Your task to perform on an android device: Open calendar and show me the first week of next month Image 0: 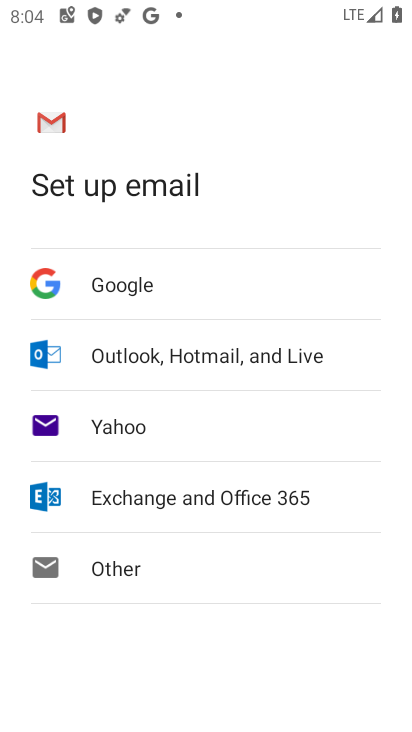
Step 0: press home button
Your task to perform on an android device: Open calendar and show me the first week of next month Image 1: 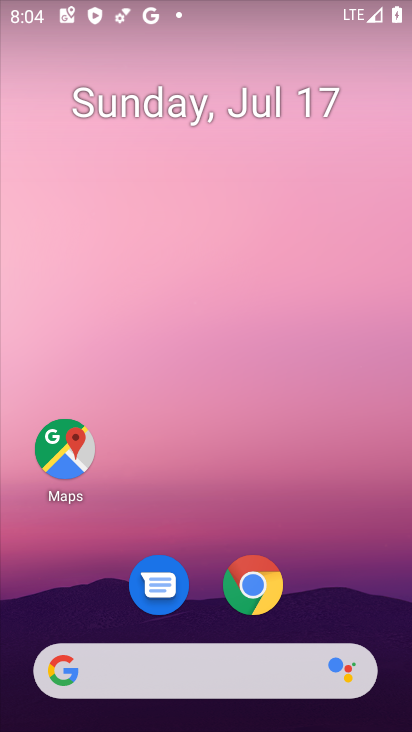
Step 1: drag from (310, 532) to (282, 49)
Your task to perform on an android device: Open calendar and show me the first week of next month Image 2: 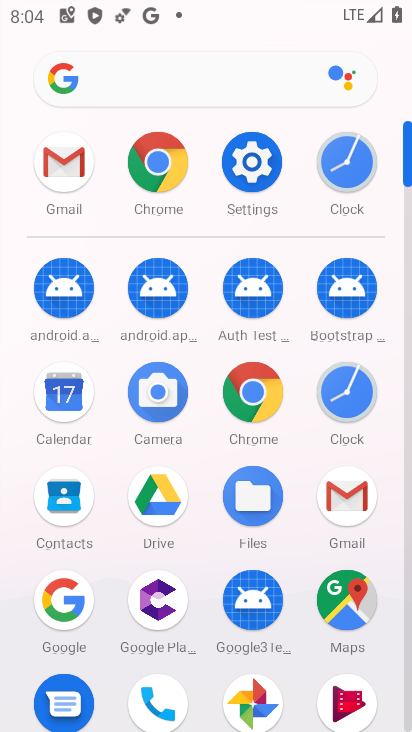
Step 2: click (72, 386)
Your task to perform on an android device: Open calendar and show me the first week of next month Image 3: 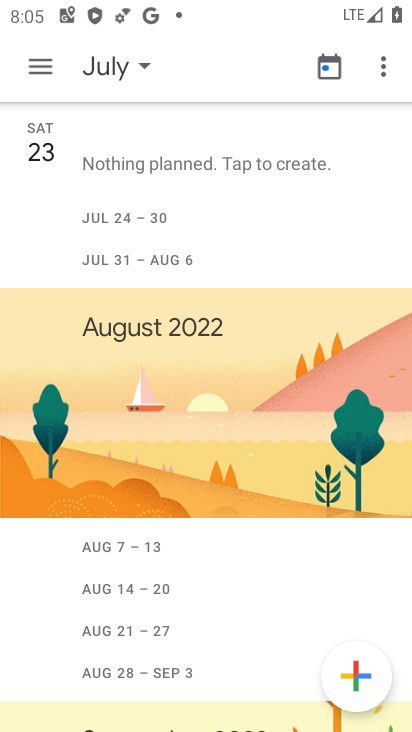
Step 3: click (35, 69)
Your task to perform on an android device: Open calendar and show me the first week of next month Image 4: 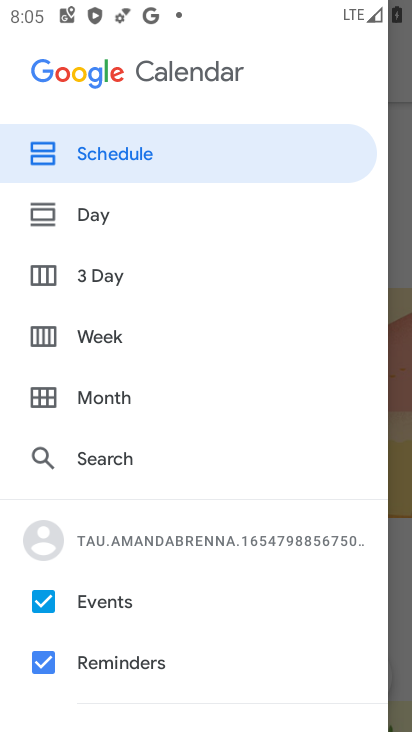
Step 4: click (46, 341)
Your task to perform on an android device: Open calendar and show me the first week of next month Image 5: 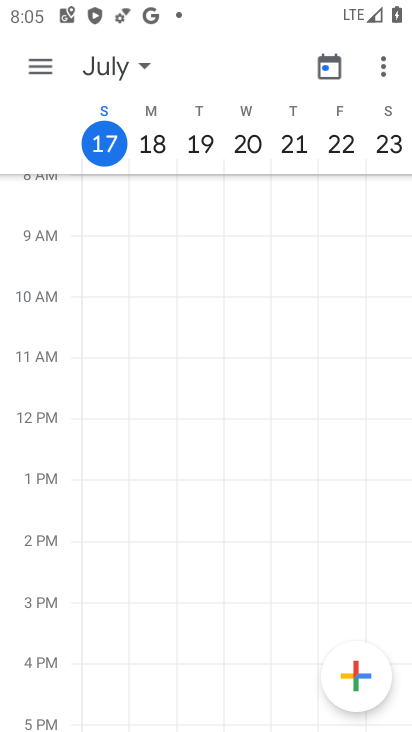
Step 5: task complete